Your task to perform on an android device: Search for Mexican restaurants on Maps Image 0: 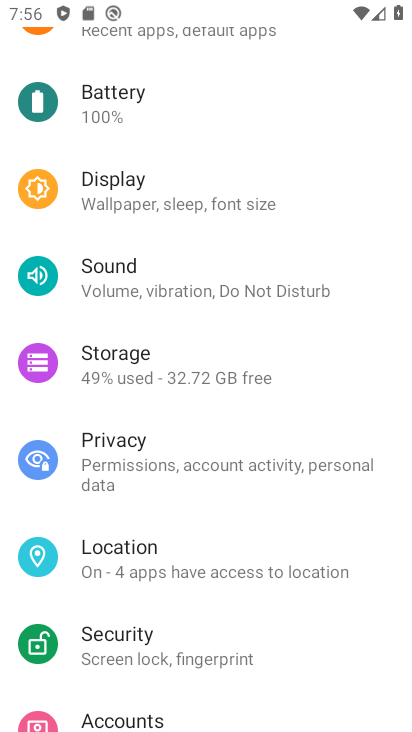
Step 0: press home button
Your task to perform on an android device: Search for Mexican restaurants on Maps Image 1: 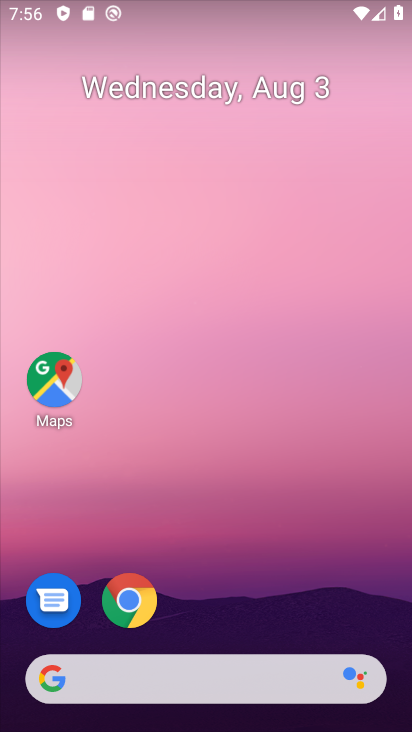
Step 1: click (44, 377)
Your task to perform on an android device: Search for Mexican restaurants on Maps Image 2: 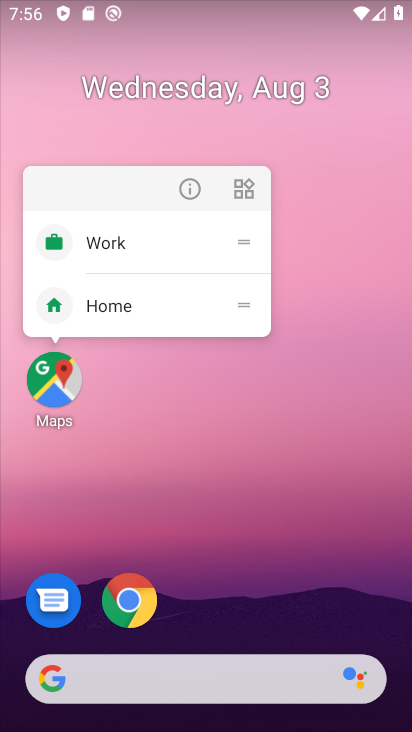
Step 2: click (43, 378)
Your task to perform on an android device: Search for Mexican restaurants on Maps Image 3: 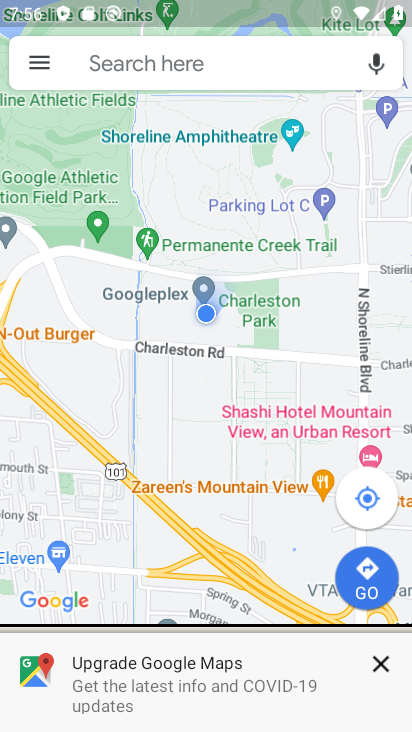
Step 3: click (139, 58)
Your task to perform on an android device: Search for Mexican restaurants on Maps Image 4: 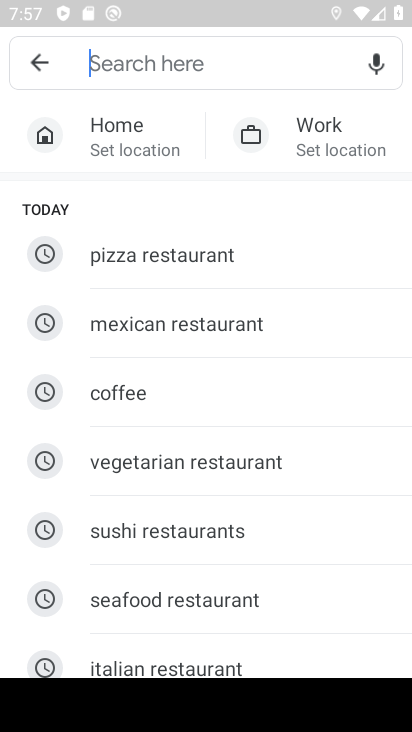
Step 4: type "mexican restaurants"
Your task to perform on an android device: Search for Mexican restaurants on Maps Image 5: 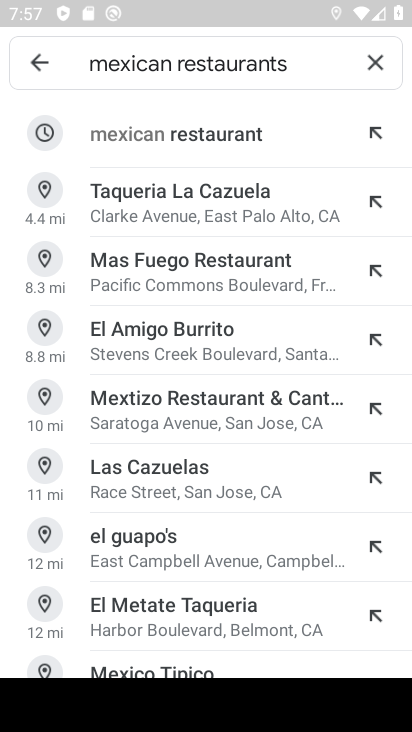
Step 5: click (195, 134)
Your task to perform on an android device: Search for Mexican restaurants on Maps Image 6: 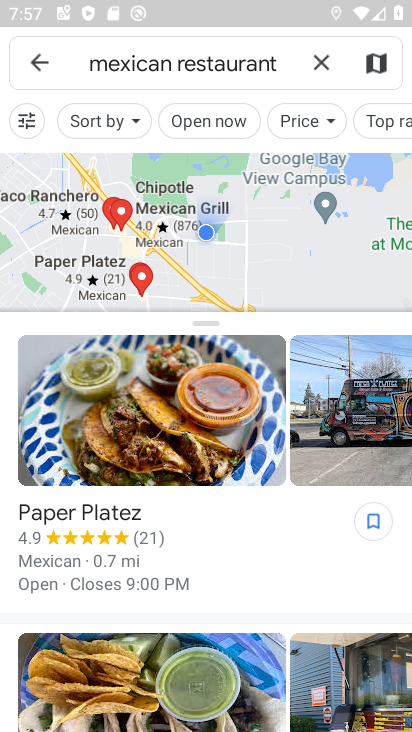
Step 6: task complete